Your task to perform on an android device: turn off location history Image 0: 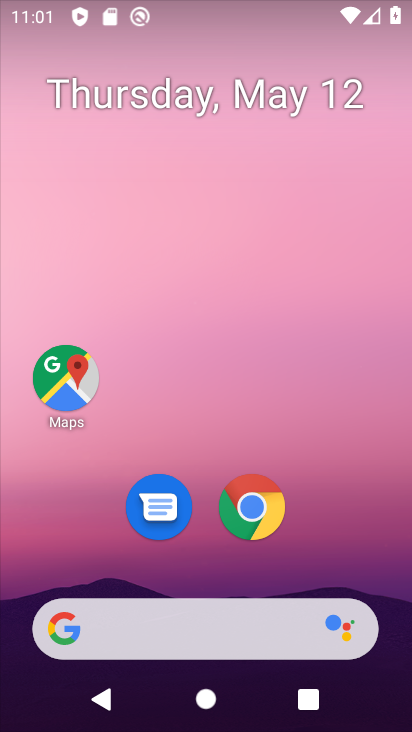
Step 0: drag from (181, 589) to (277, 48)
Your task to perform on an android device: turn off location history Image 1: 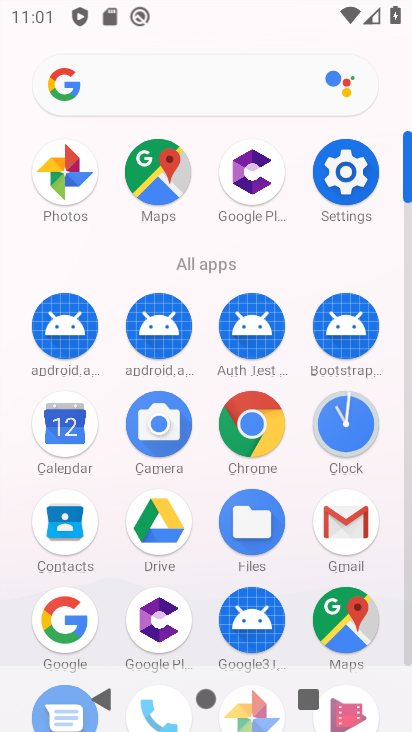
Step 1: drag from (236, 651) to (318, 280)
Your task to perform on an android device: turn off location history Image 2: 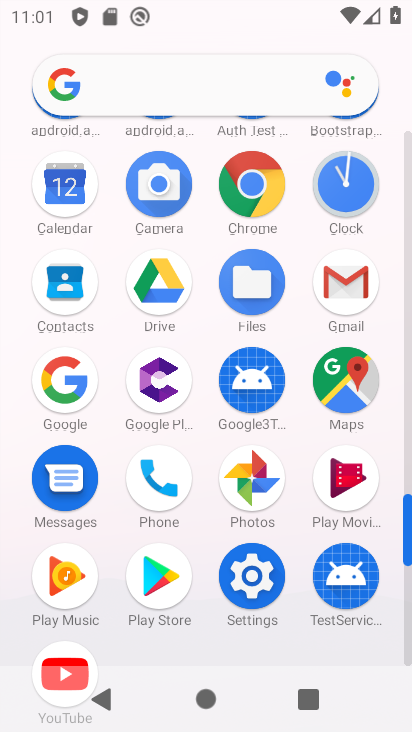
Step 2: click (244, 589)
Your task to perform on an android device: turn off location history Image 3: 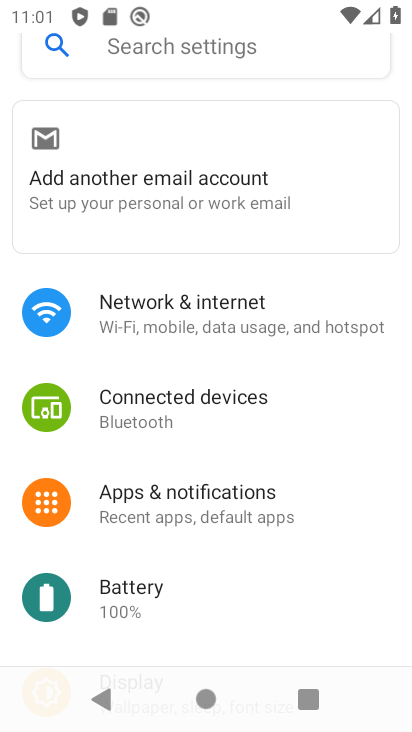
Step 3: drag from (251, 425) to (331, 142)
Your task to perform on an android device: turn off location history Image 4: 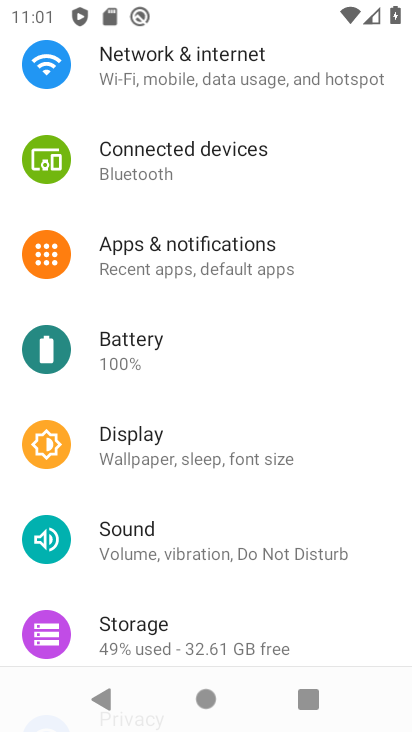
Step 4: drag from (210, 604) to (334, 146)
Your task to perform on an android device: turn off location history Image 5: 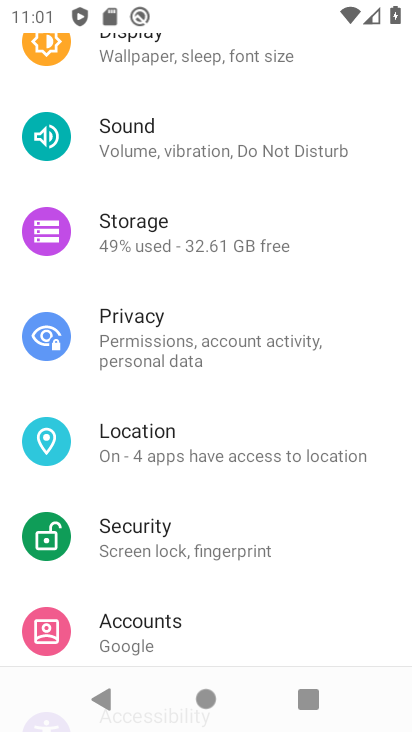
Step 5: click (157, 438)
Your task to perform on an android device: turn off location history Image 6: 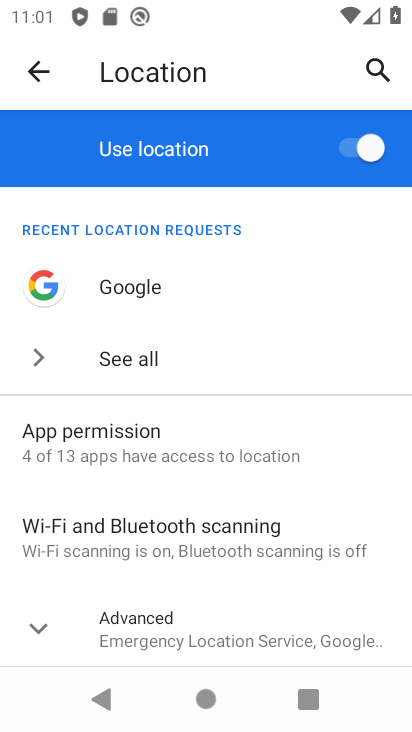
Step 6: click (193, 610)
Your task to perform on an android device: turn off location history Image 7: 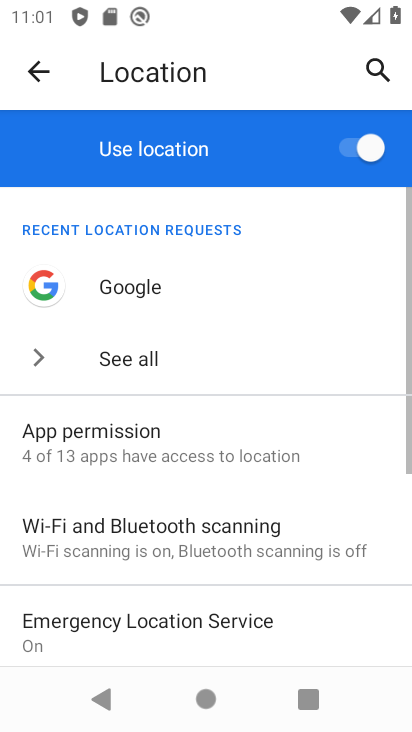
Step 7: drag from (152, 633) to (290, 148)
Your task to perform on an android device: turn off location history Image 8: 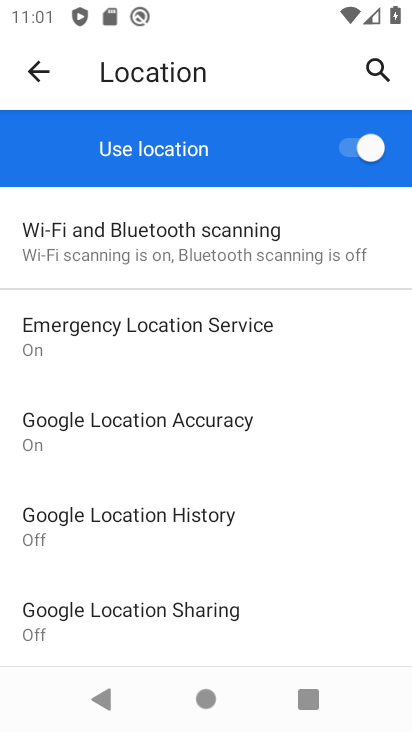
Step 8: click (243, 546)
Your task to perform on an android device: turn off location history Image 9: 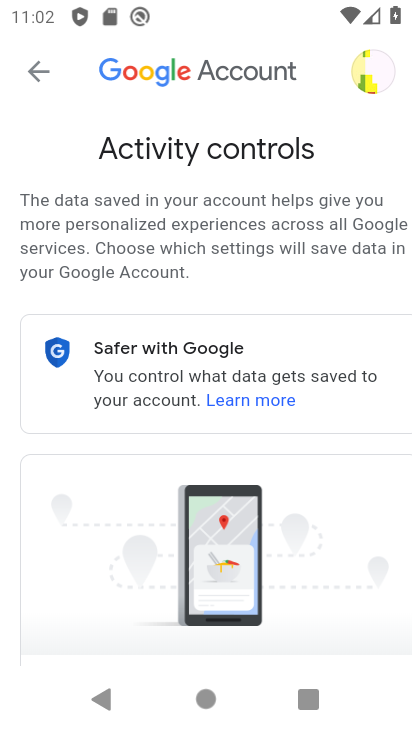
Step 9: drag from (196, 587) to (298, 146)
Your task to perform on an android device: turn off location history Image 10: 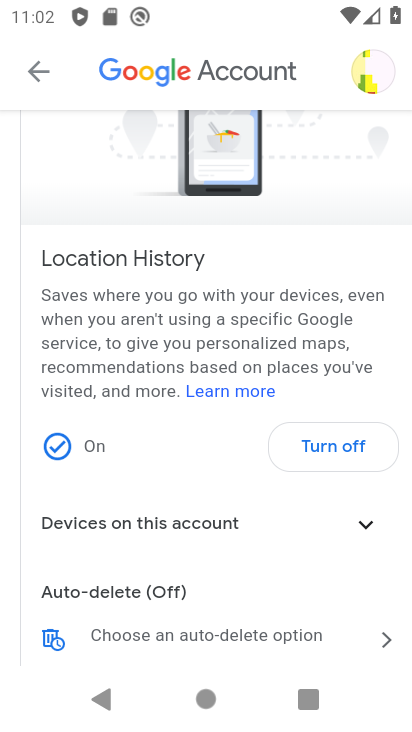
Step 10: drag from (223, 637) to (295, 331)
Your task to perform on an android device: turn off location history Image 11: 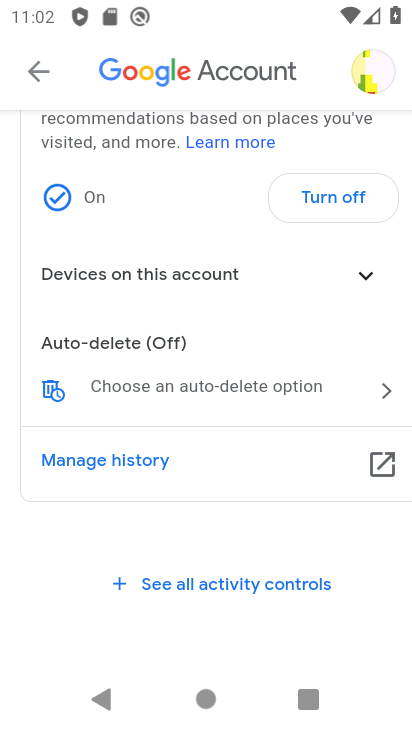
Step 11: click (320, 187)
Your task to perform on an android device: turn off location history Image 12: 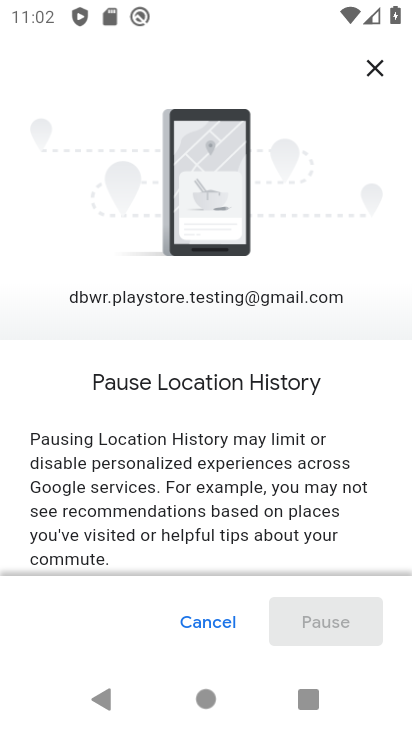
Step 12: drag from (230, 516) to (329, 118)
Your task to perform on an android device: turn off location history Image 13: 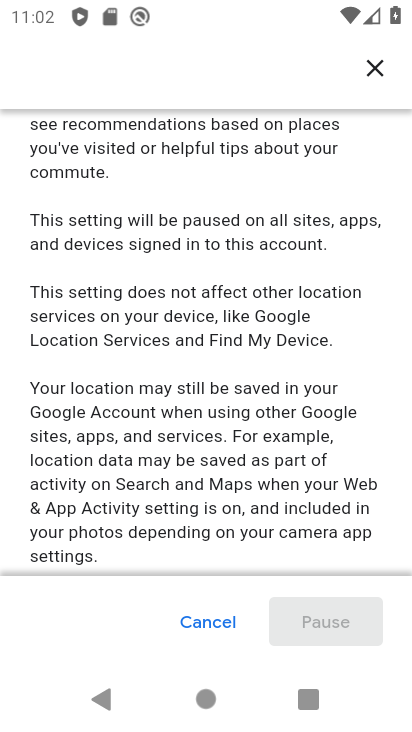
Step 13: drag from (253, 560) to (356, 110)
Your task to perform on an android device: turn off location history Image 14: 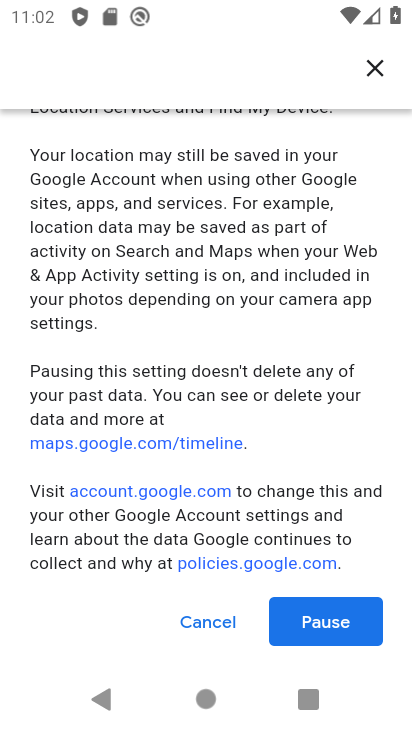
Step 14: click (335, 619)
Your task to perform on an android device: turn off location history Image 15: 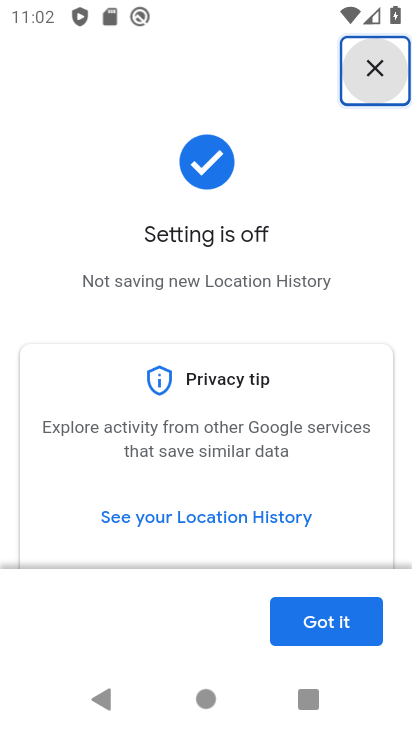
Step 15: click (329, 629)
Your task to perform on an android device: turn off location history Image 16: 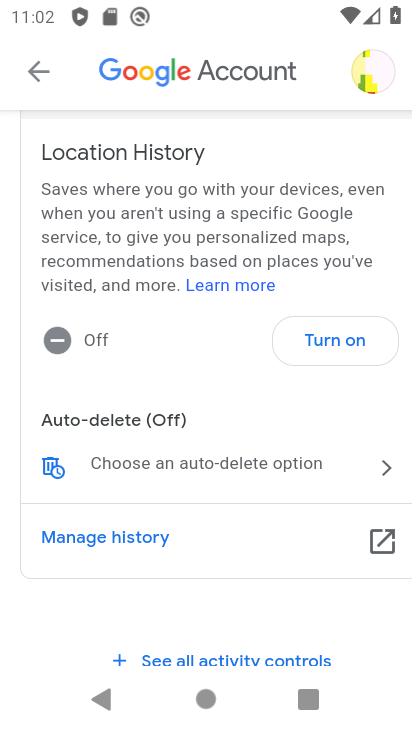
Step 16: task complete